Your task to perform on an android device: Clear all items from cart on walmart.com. Search for logitech g pro on walmart.com, select the first entry, and add it to the cart. Image 0: 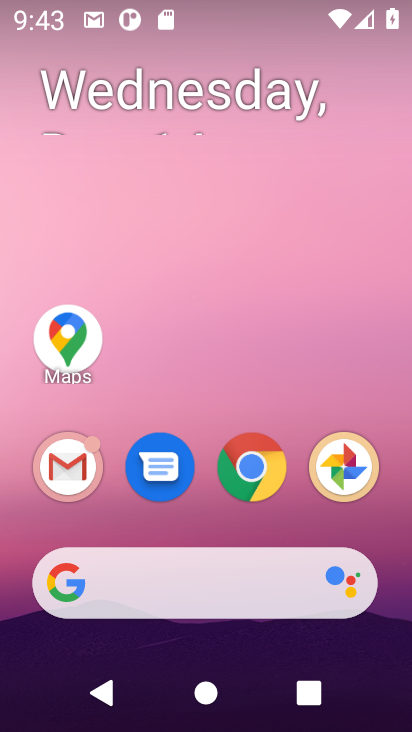
Step 0: click (264, 468)
Your task to perform on an android device: Clear all items from cart on walmart.com. Search for logitech g pro on walmart.com, select the first entry, and add it to the cart. Image 1: 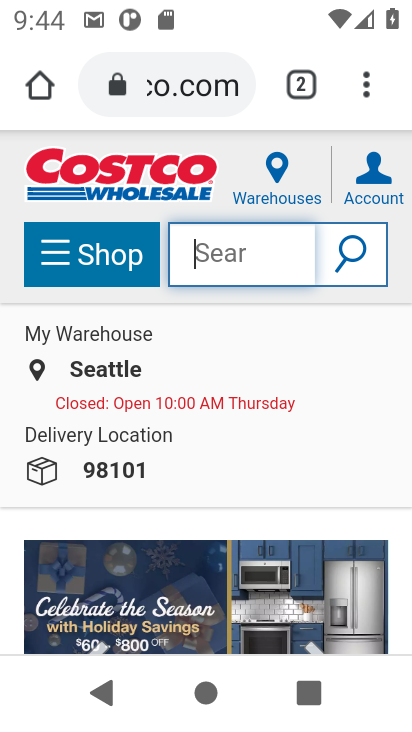
Step 1: task complete